Your task to perform on an android device: turn on translation in the chrome app Image 0: 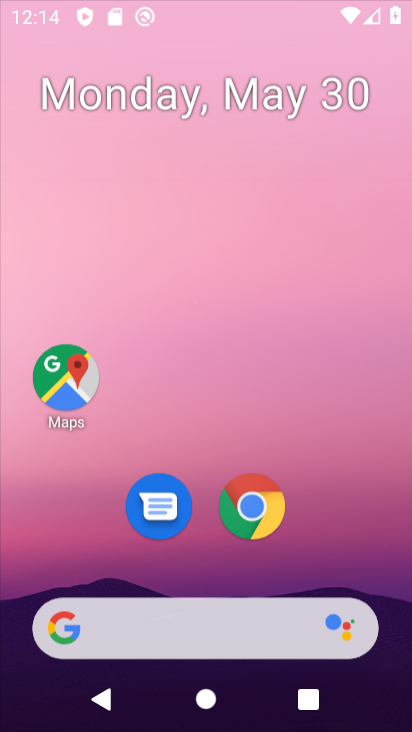
Step 0: drag from (341, 510) to (331, 207)
Your task to perform on an android device: turn on translation in the chrome app Image 1: 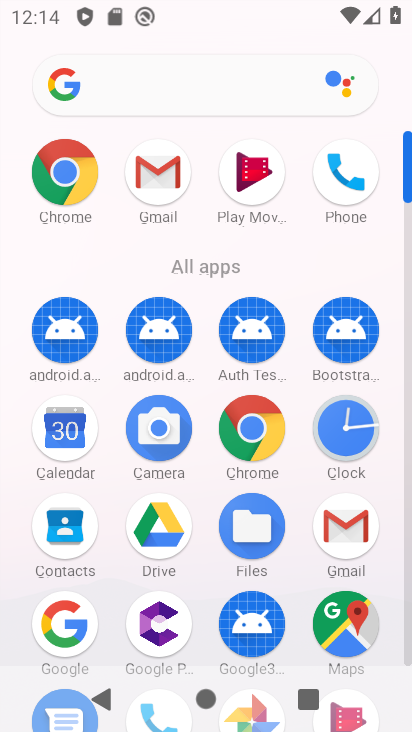
Step 1: click (256, 426)
Your task to perform on an android device: turn on translation in the chrome app Image 2: 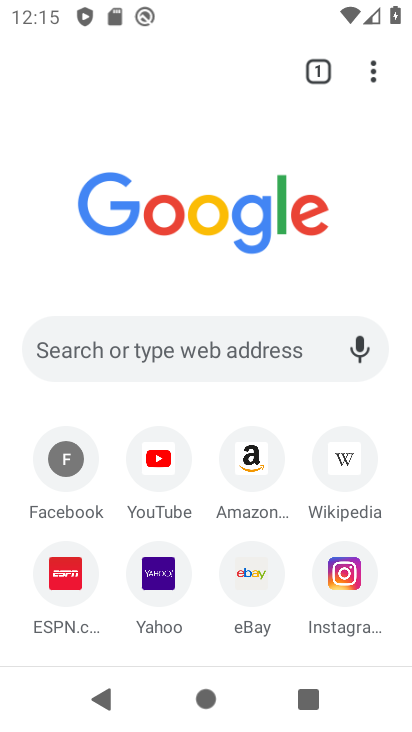
Step 2: click (374, 62)
Your task to perform on an android device: turn on translation in the chrome app Image 3: 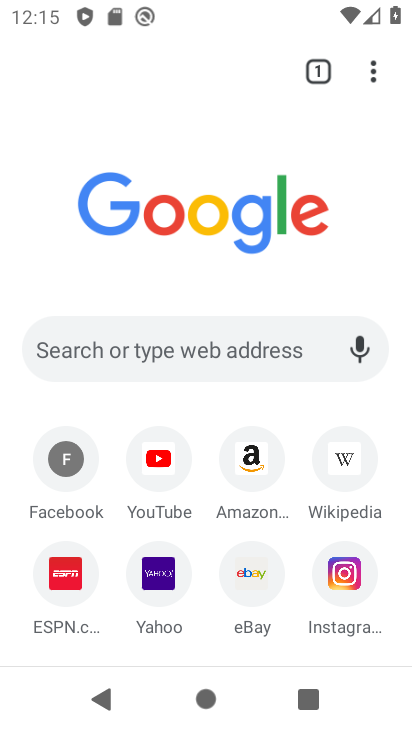
Step 3: click (373, 61)
Your task to perform on an android device: turn on translation in the chrome app Image 4: 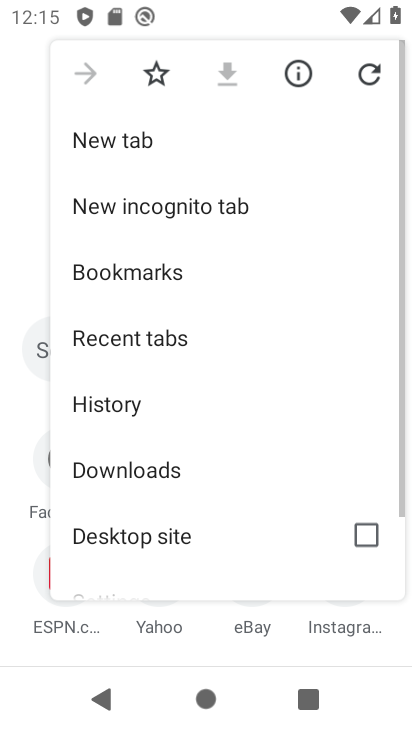
Step 4: drag from (191, 502) to (210, 186)
Your task to perform on an android device: turn on translation in the chrome app Image 5: 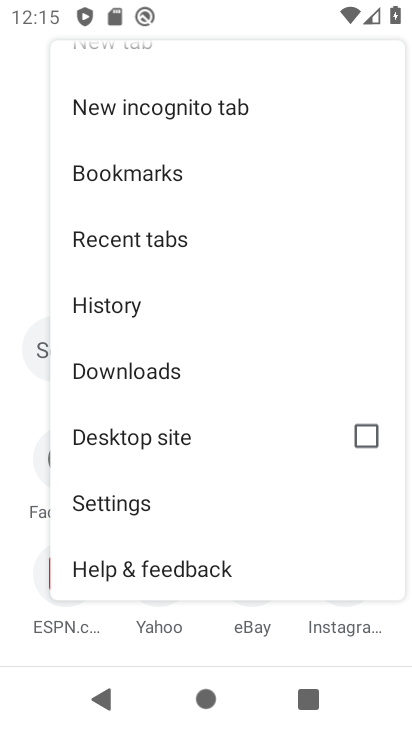
Step 5: click (124, 502)
Your task to perform on an android device: turn on translation in the chrome app Image 6: 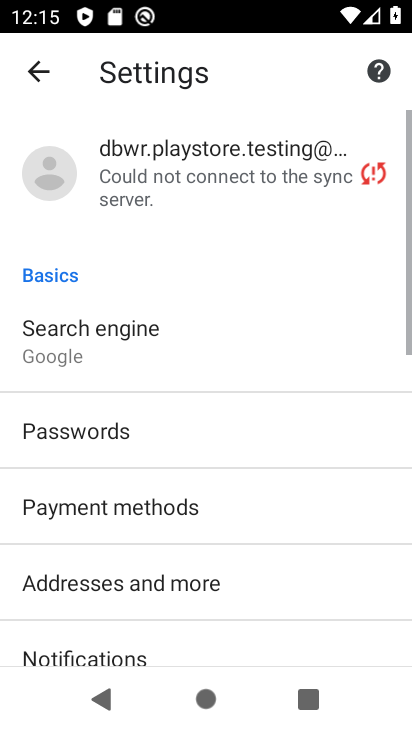
Step 6: drag from (164, 575) to (203, 216)
Your task to perform on an android device: turn on translation in the chrome app Image 7: 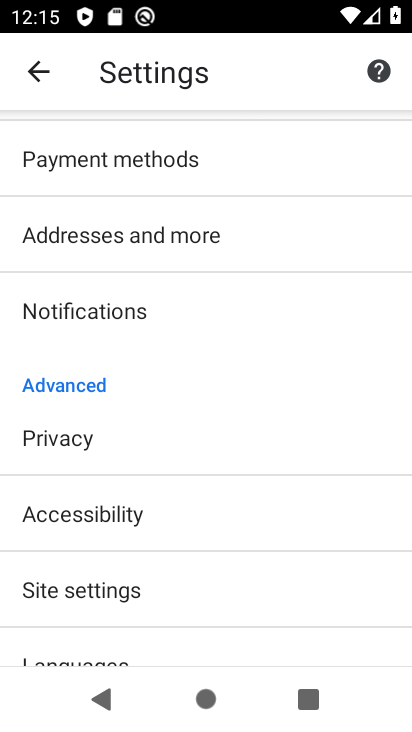
Step 7: drag from (181, 571) to (190, 343)
Your task to perform on an android device: turn on translation in the chrome app Image 8: 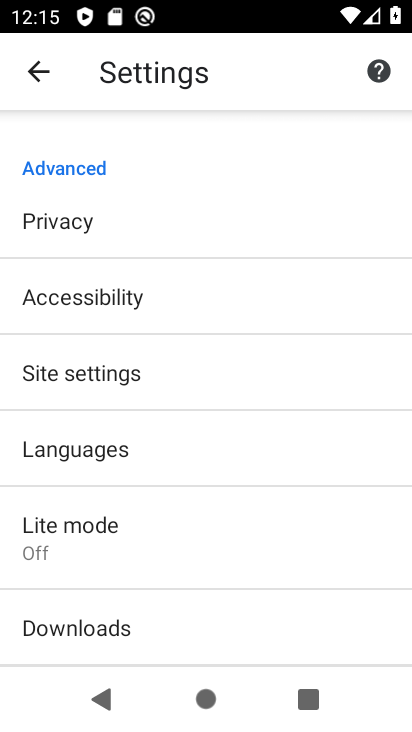
Step 8: click (109, 463)
Your task to perform on an android device: turn on translation in the chrome app Image 9: 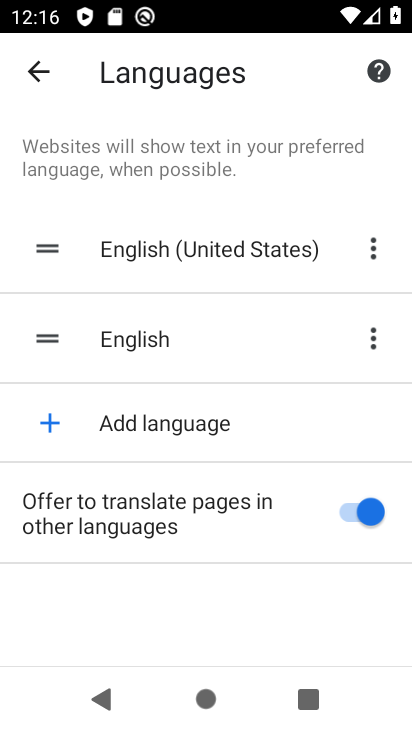
Step 9: task complete